Your task to perform on an android device: delete a single message in the gmail app Image 0: 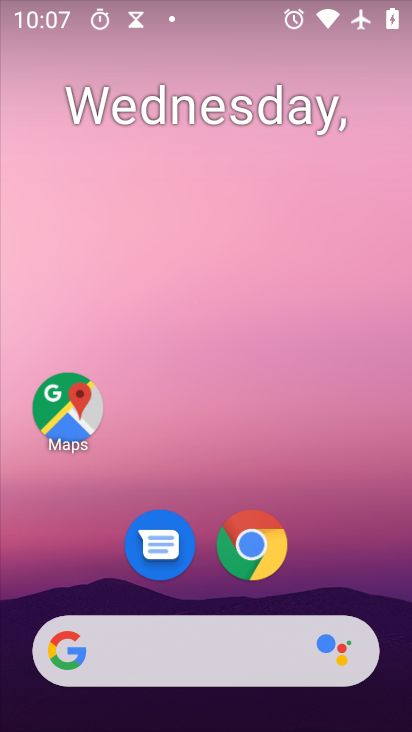
Step 0: press home button
Your task to perform on an android device: delete a single message in the gmail app Image 1: 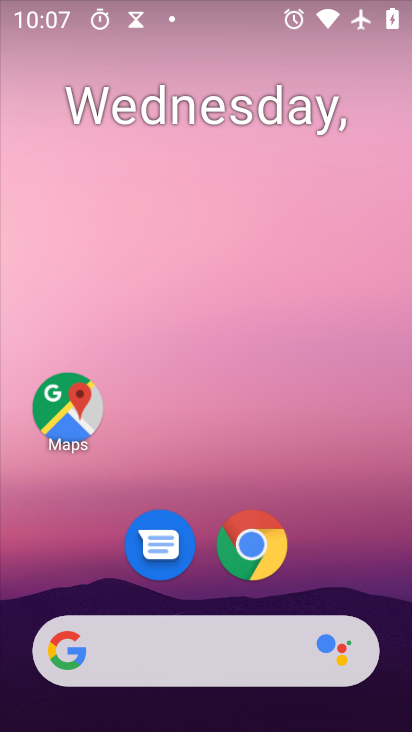
Step 1: drag from (193, 652) to (352, 141)
Your task to perform on an android device: delete a single message in the gmail app Image 2: 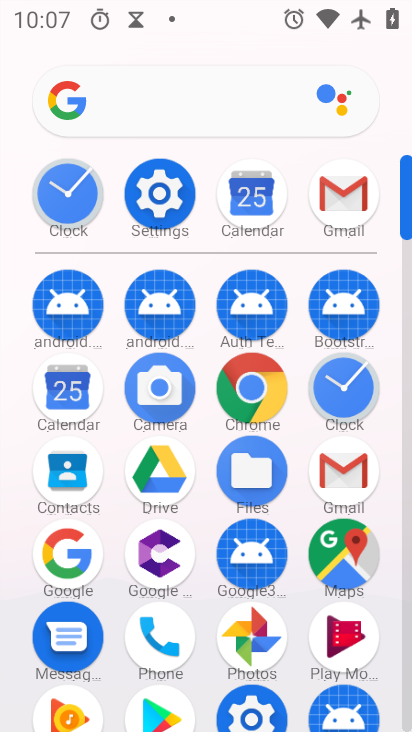
Step 2: click (341, 201)
Your task to perform on an android device: delete a single message in the gmail app Image 3: 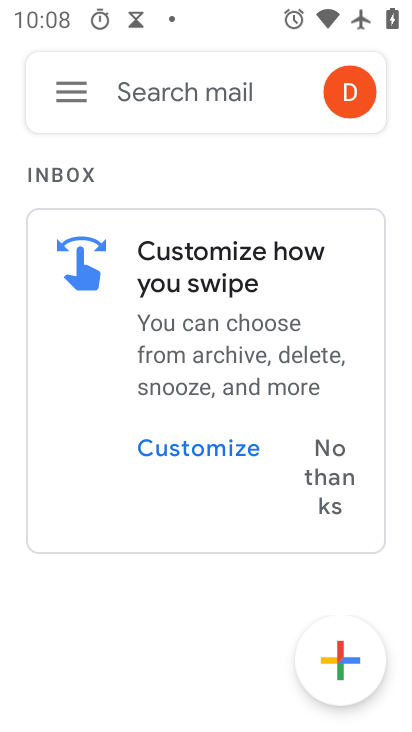
Step 3: task complete